Your task to perform on an android device: turn on data saver in the chrome app Image 0: 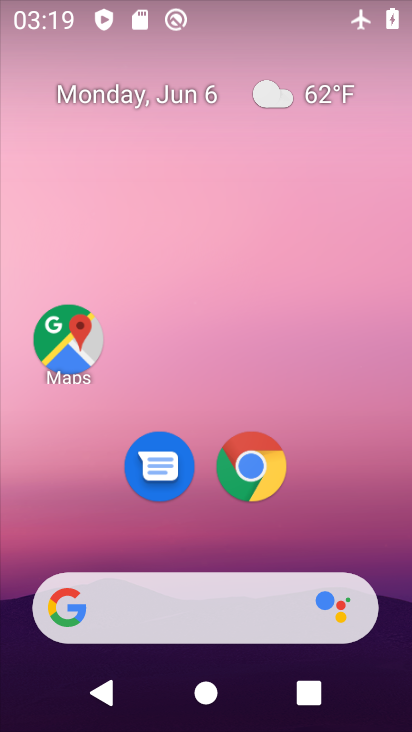
Step 0: click (262, 475)
Your task to perform on an android device: turn on data saver in the chrome app Image 1: 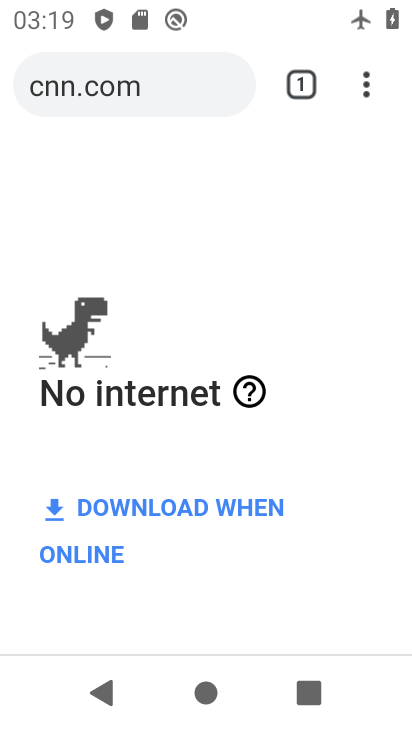
Step 1: drag from (367, 90) to (263, 524)
Your task to perform on an android device: turn on data saver in the chrome app Image 2: 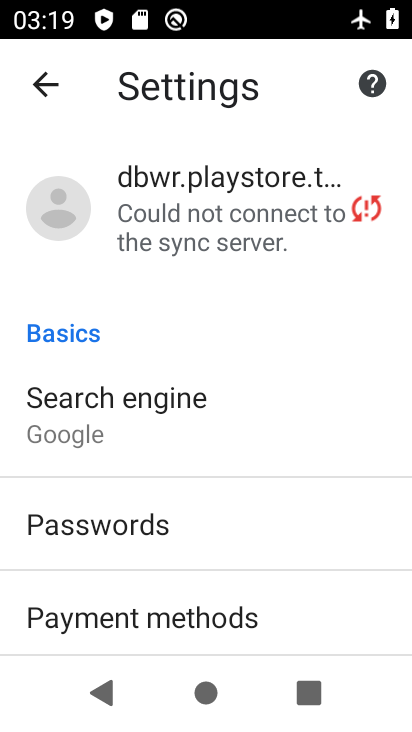
Step 2: drag from (291, 566) to (320, 0)
Your task to perform on an android device: turn on data saver in the chrome app Image 3: 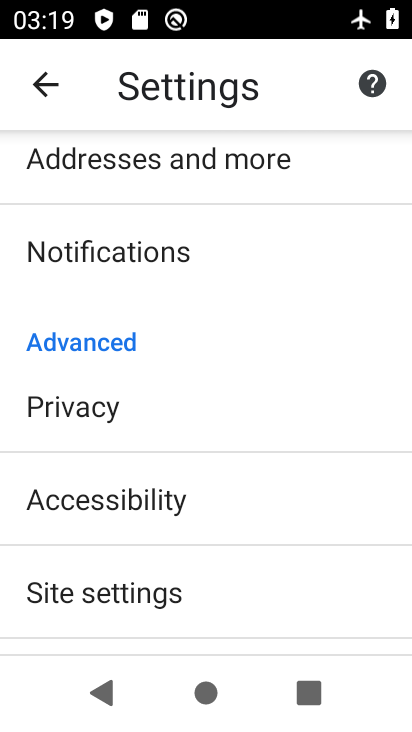
Step 3: drag from (217, 483) to (289, 65)
Your task to perform on an android device: turn on data saver in the chrome app Image 4: 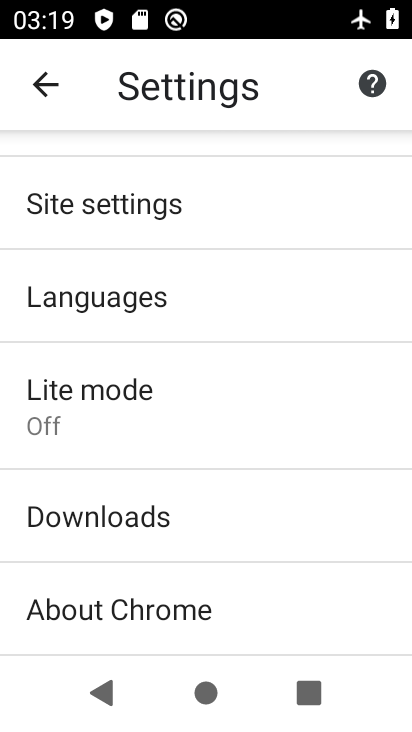
Step 4: click (109, 421)
Your task to perform on an android device: turn on data saver in the chrome app Image 5: 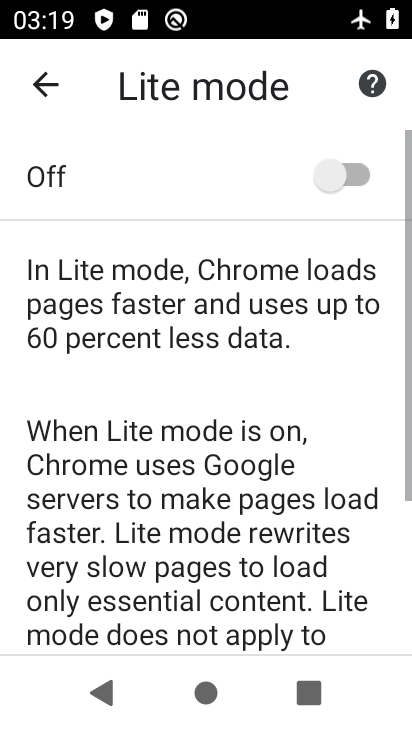
Step 5: click (332, 180)
Your task to perform on an android device: turn on data saver in the chrome app Image 6: 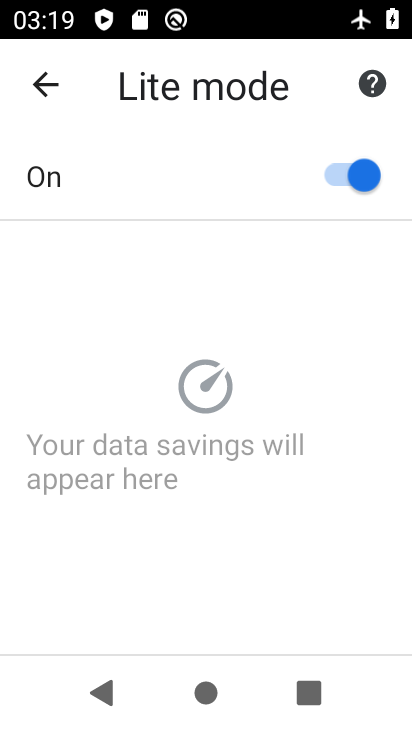
Step 6: task complete